Your task to perform on an android device: toggle show notifications on the lock screen Image 0: 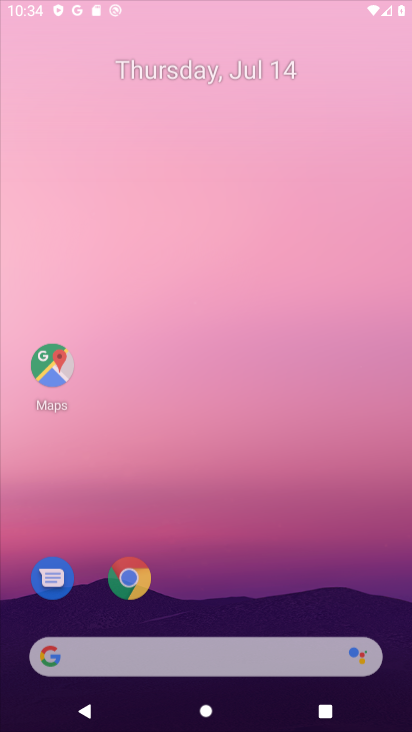
Step 0: press home button
Your task to perform on an android device: toggle show notifications on the lock screen Image 1: 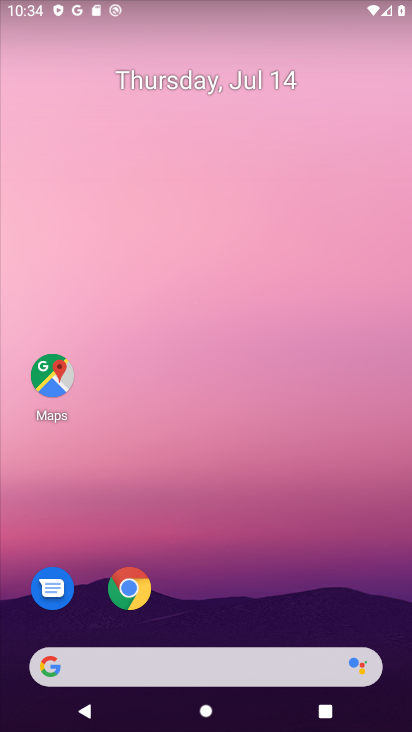
Step 1: drag from (296, 591) to (275, 2)
Your task to perform on an android device: toggle show notifications on the lock screen Image 2: 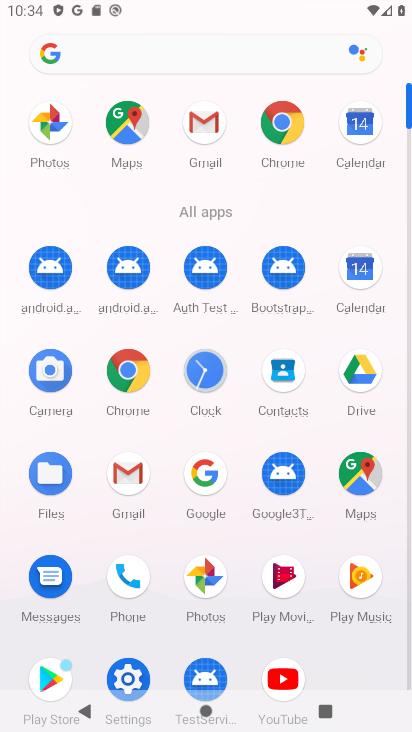
Step 2: click (113, 672)
Your task to perform on an android device: toggle show notifications on the lock screen Image 3: 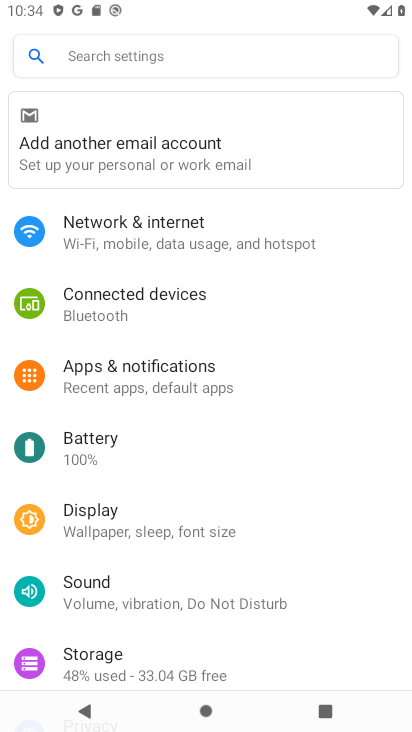
Step 3: click (165, 356)
Your task to perform on an android device: toggle show notifications on the lock screen Image 4: 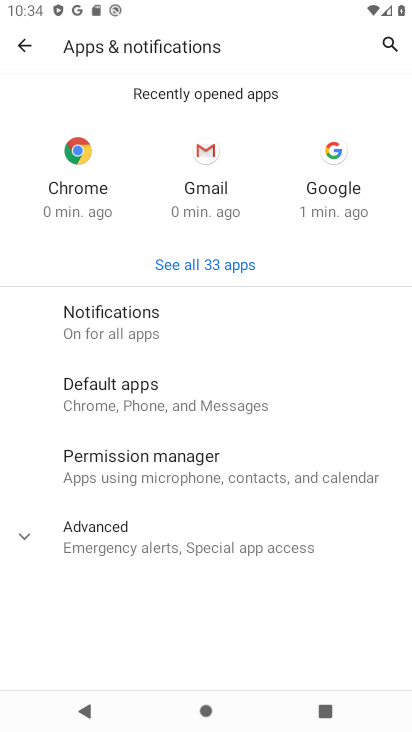
Step 4: click (144, 323)
Your task to perform on an android device: toggle show notifications on the lock screen Image 5: 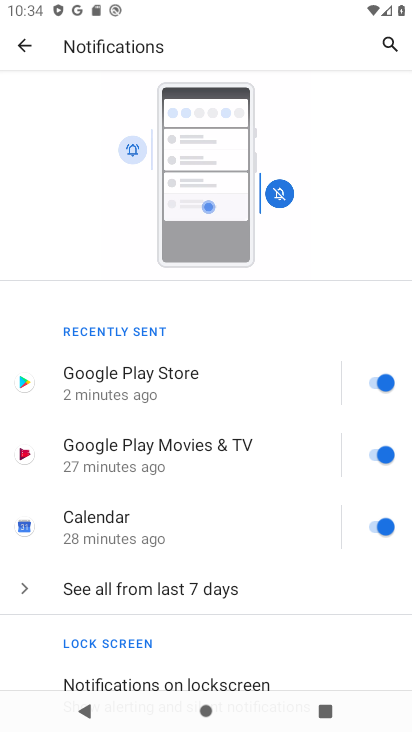
Step 5: drag from (113, 632) to (146, 359)
Your task to perform on an android device: toggle show notifications on the lock screen Image 6: 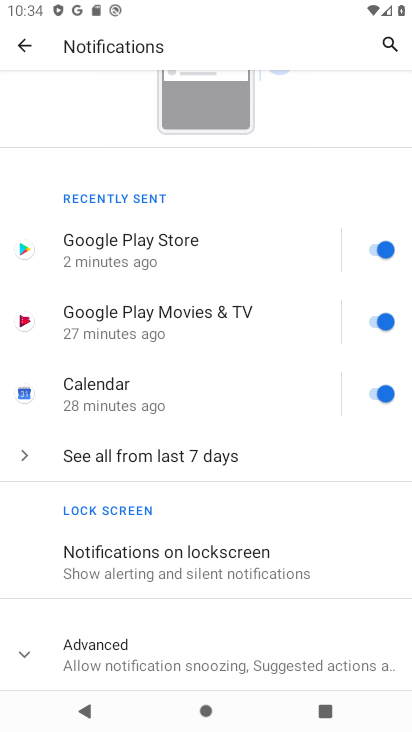
Step 6: click (96, 555)
Your task to perform on an android device: toggle show notifications on the lock screen Image 7: 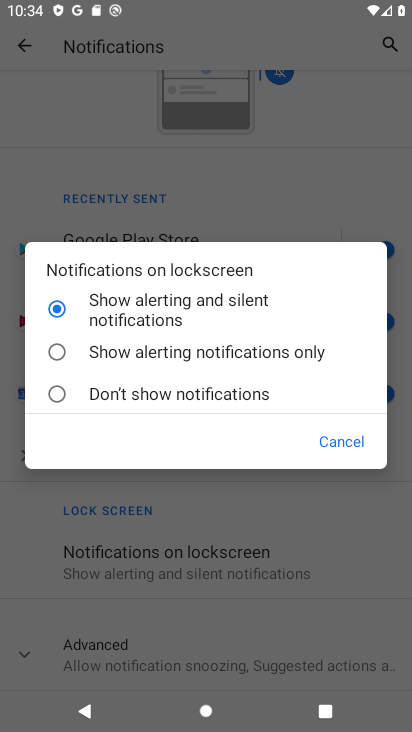
Step 7: click (102, 358)
Your task to perform on an android device: toggle show notifications on the lock screen Image 8: 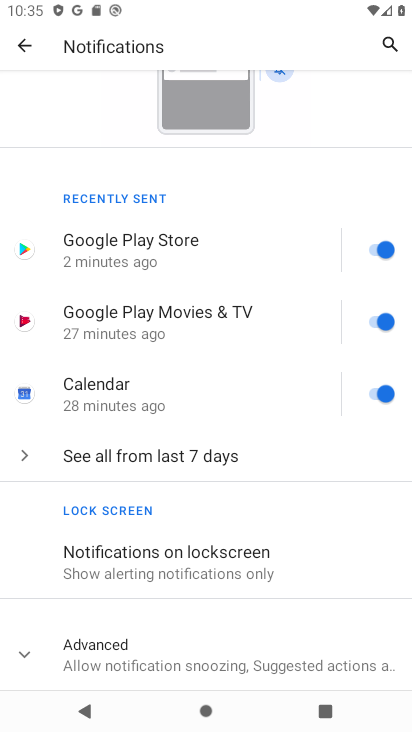
Step 8: task complete